Your task to perform on an android device: toggle javascript in the chrome app Image 0: 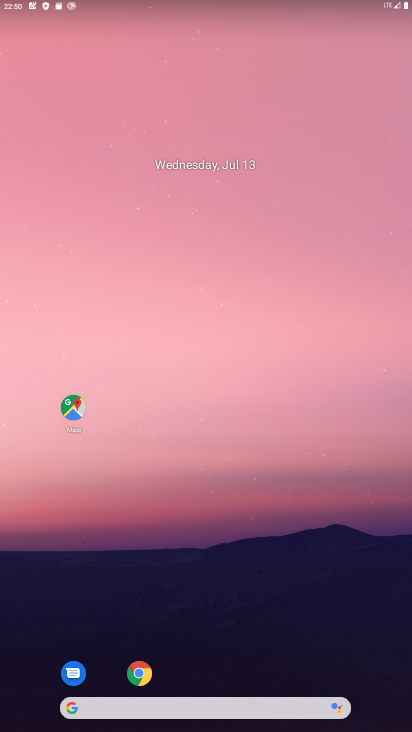
Step 0: drag from (206, 655) to (261, 215)
Your task to perform on an android device: toggle javascript in the chrome app Image 1: 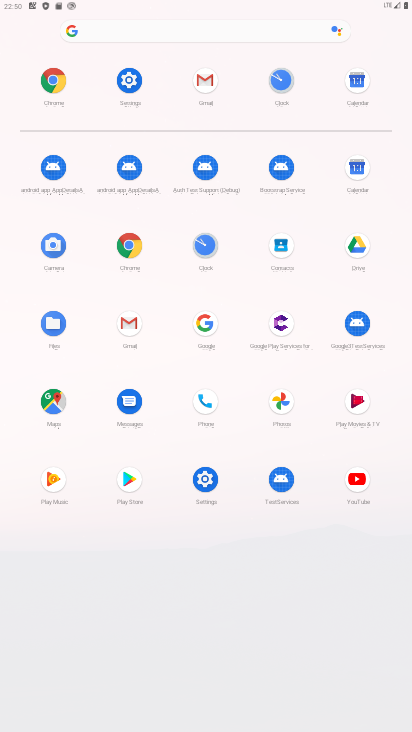
Step 1: click (126, 245)
Your task to perform on an android device: toggle javascript in the chrome app Image 2: 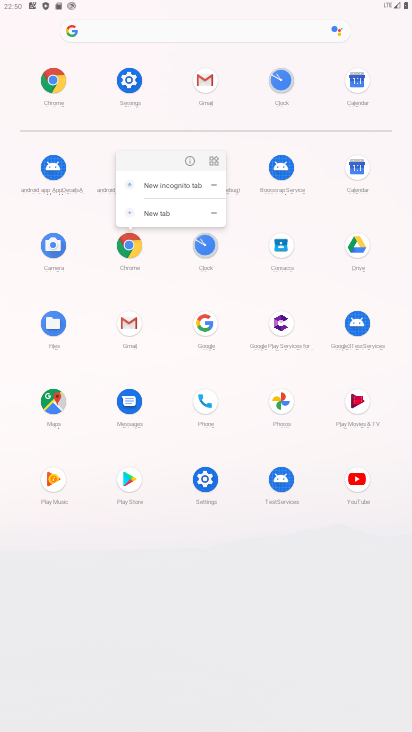
Step 2: click (191, 158)
Your task to perform on an android device: toggle javascript in the chrome app Image 3: 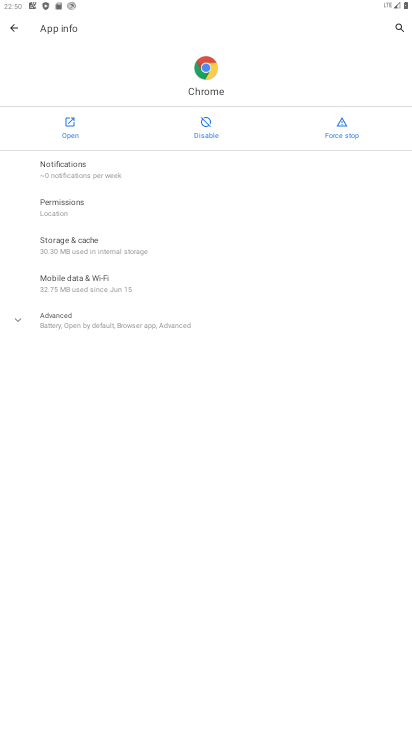
Step 3: click (64, 127)
Your task to perform on an android device: toggle javascript in the chrome app Image 4: 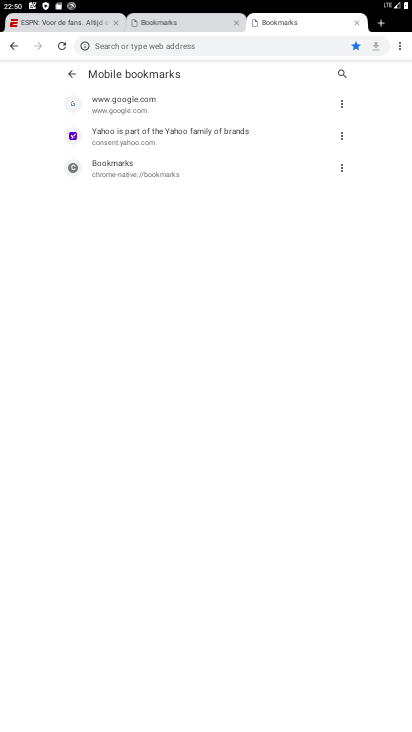
Step 4: click (397, 46)
Your task to perform on an android device: toggle javascript in the chrome app Image 5: 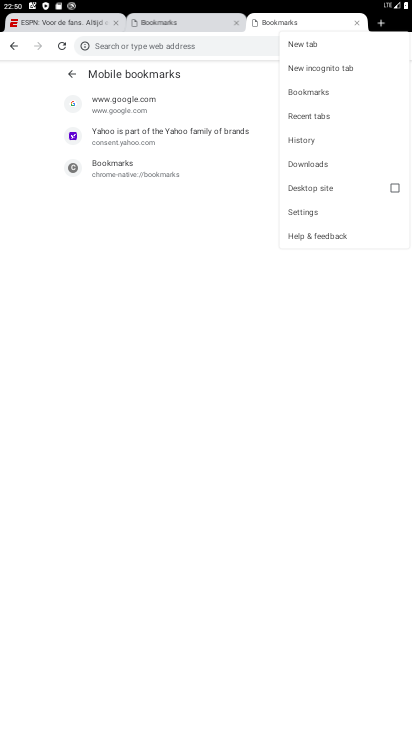
Step 5: click (288, 205)
Your task to perform on an android device: toggle javascript in the chrome app Image 6: 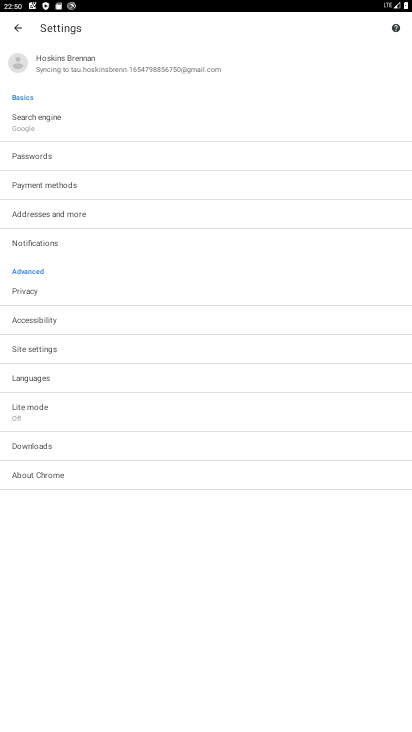
Step 6: click (253, 209)
Your task to perform on an android device: toggle javascript in the chrome app Image 7: 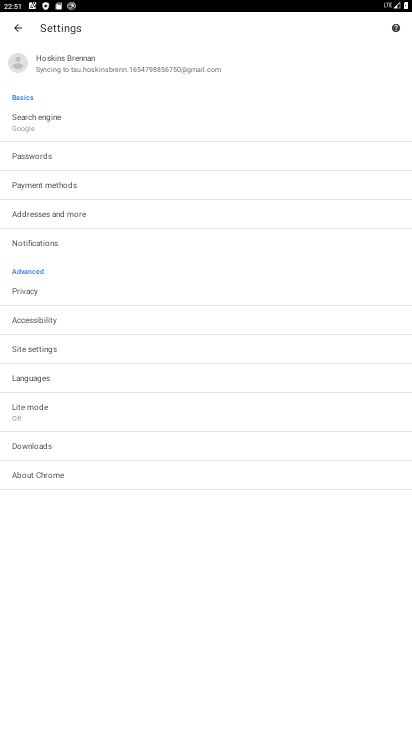
Step 7: click (44, 347)
Your task to perform on an android device: toggle javascript in the chrome app Image 8: 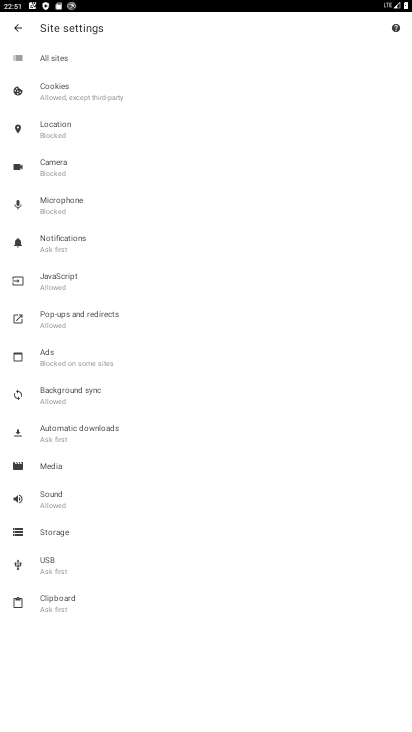
Step 8: click (81, 273)
Your task to perform on an android device: toggle javascript in the chrome app Image 9: 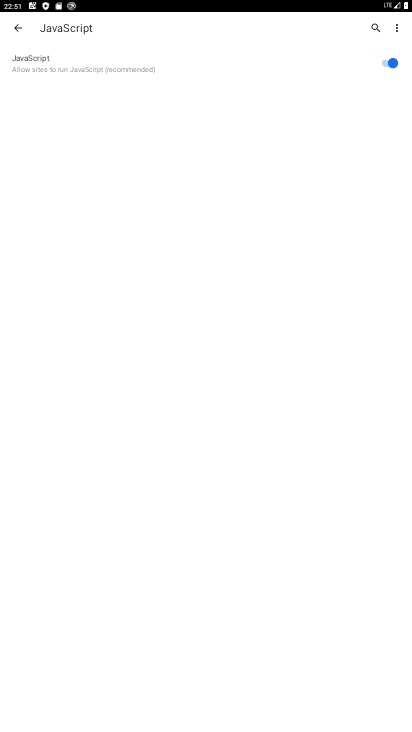
Step 9: click (392, 59)
Your task to perform on an android device: toggle javascript in the chrome app Image 10: 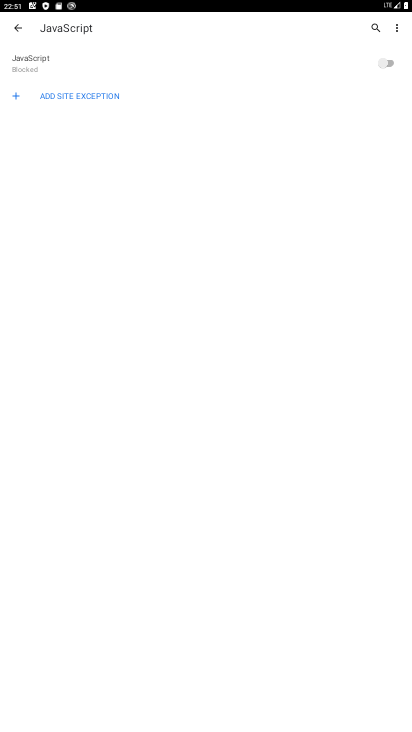
Step 10: task complete